Your task to perform on an android device: set the stopwatch Image 0: 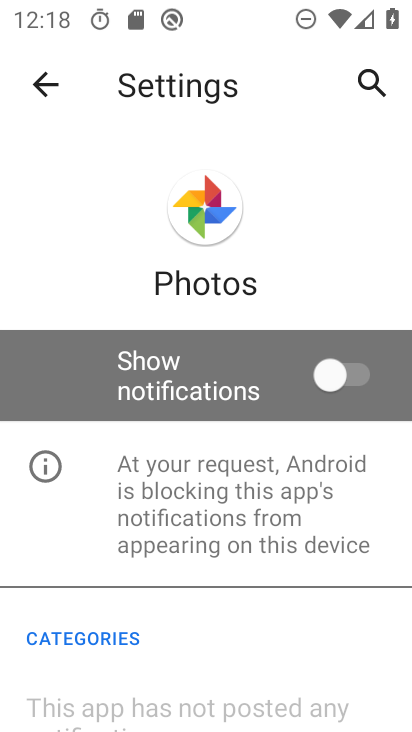
Step 0: press home button
Your task to perform on an android device: set the stopwatch Image 1: 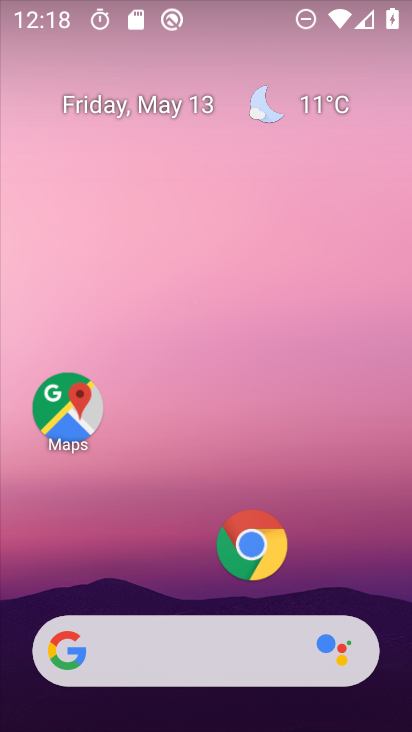
Step 1: drag from (196, 588) to (192, 1)
Your task to perform on an android device: set the stopwatch Image 2: 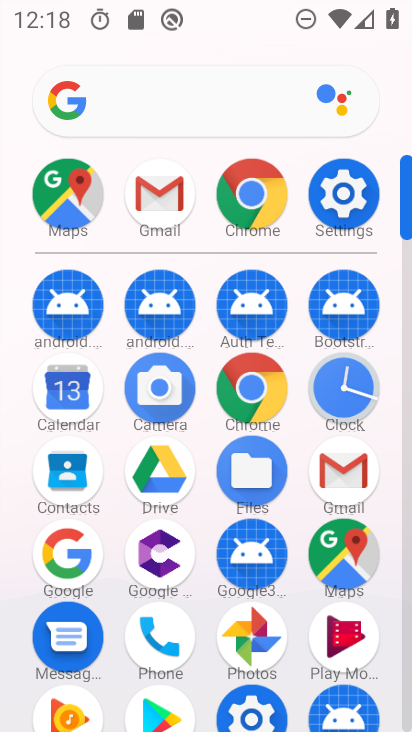
Step 2: click (342, 382)
Your task to perform on an android device: set the stopwatch Image 3: 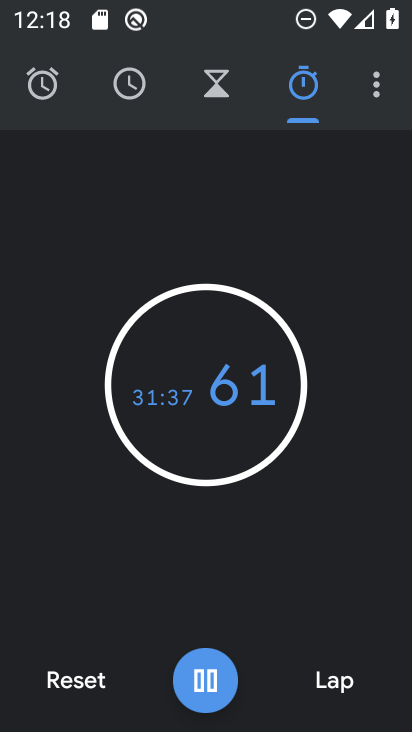
Step 3: click (80, 679)
Your task to perform on an android device: set the stopwatch Image 4: 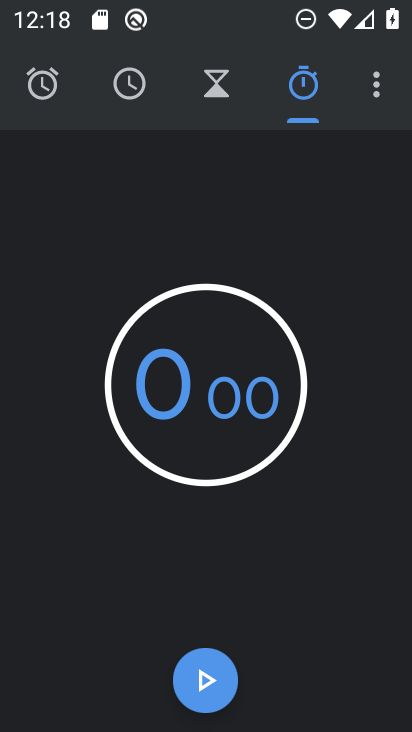
Step 4: click (202, 674)
Your task to perform on an android device: set the stopwatch Image 5: 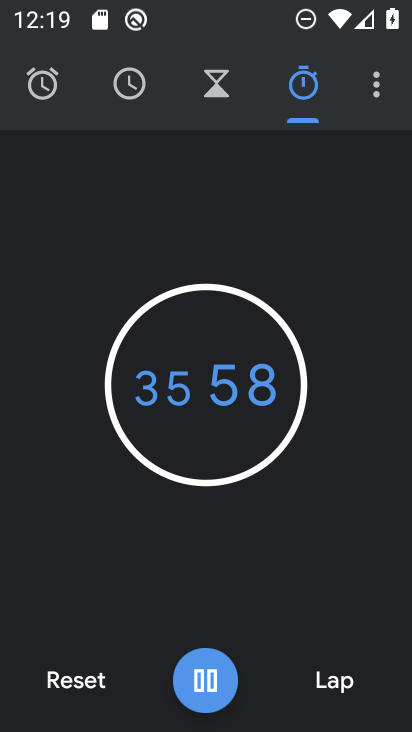
Step 5: task complete